Your task to perform on an android device: Open settings Image 0: 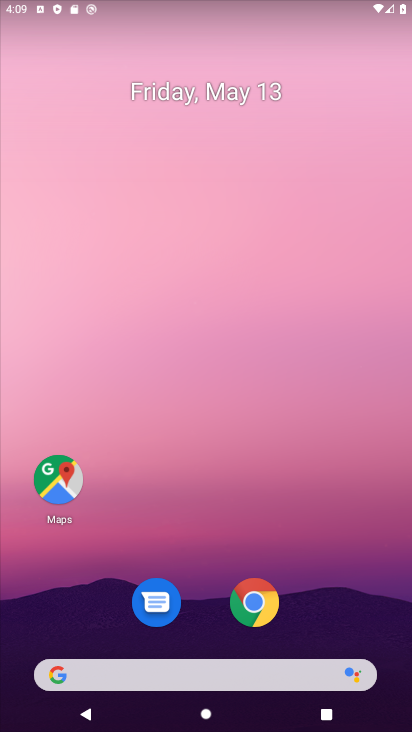
Step 0: drag from (199, 657) to (213, 326)
Your task to perform on an android device: Open settings Image 1: 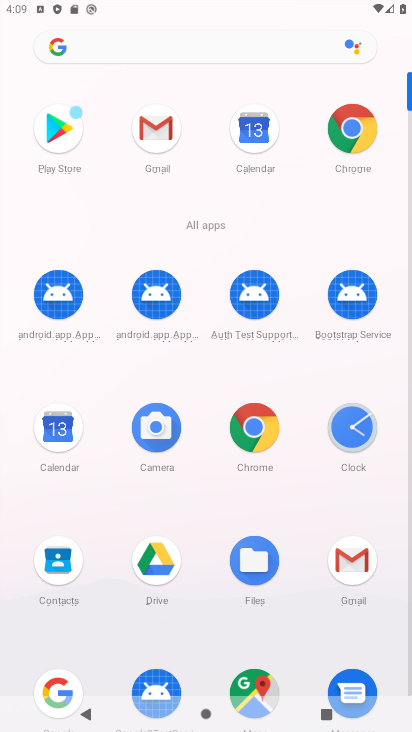
Step 1: drag from (150, 607) to (138, 185)
Your task to perform on an android device: Open settings Image 2: 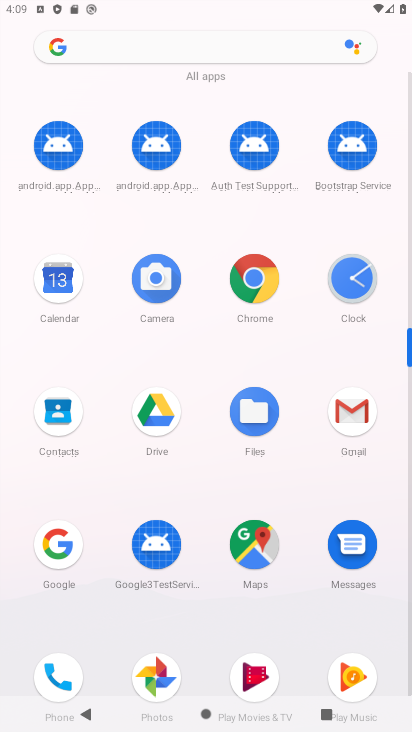
Step 2: drag from (112, 501) to (122, 175)
Your task to perform on an android device: Open settings Image 3: 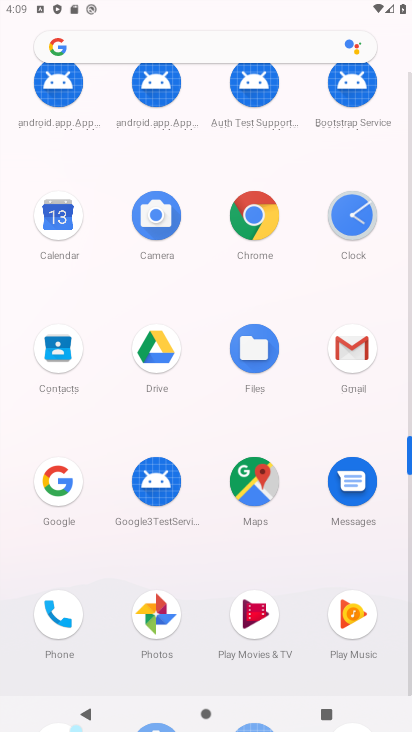
Step 3: drag from (123, 692) to (101, 307)
Your task to perform on an android device: Open settings Image 4: 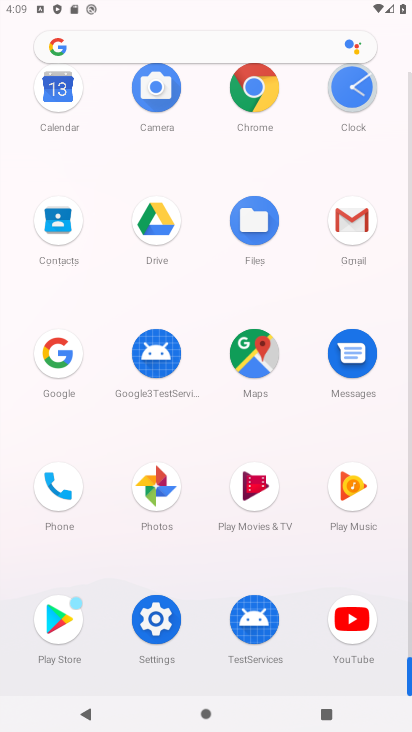
Step 4: click (147, 617)
Your task to perform on an android device: Open settings Image 5: 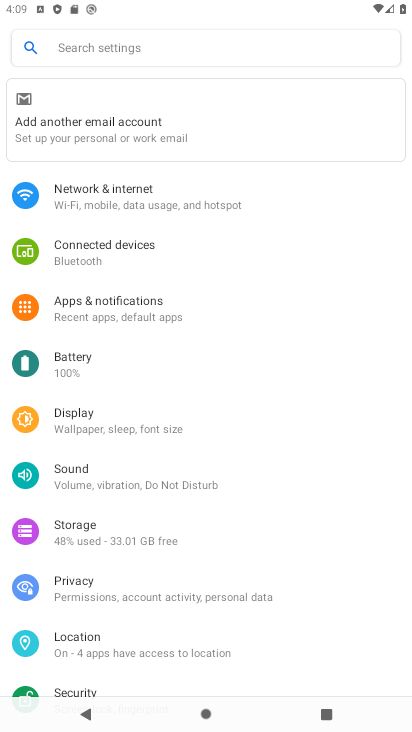
Step 5: task complete